Your task to perform on an android device: open app "Messages" (install if not already installed) Image 0: 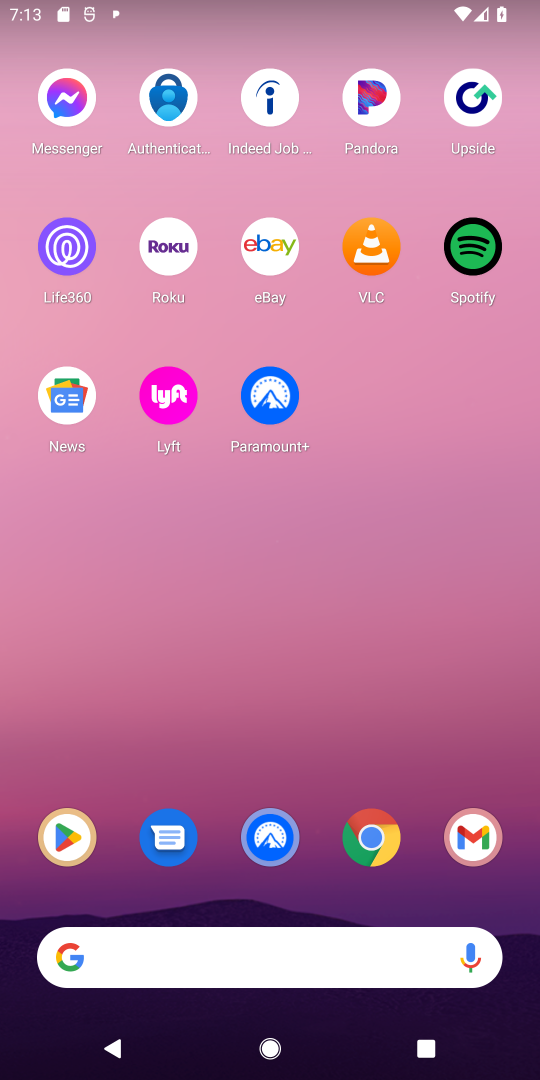
Step 0: click (170, 841)
Your task to perform on an android device: open app "Messages" (install if not already installed) Image 1: 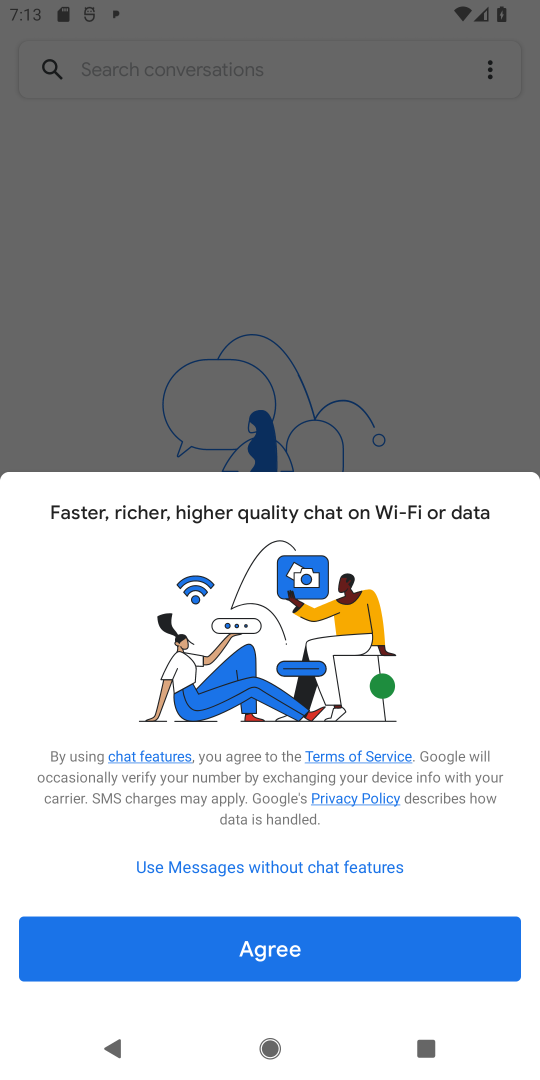
Step 1: task complete